Your task to perform on an android device: Is it going to rain tomorrow? Image 0: 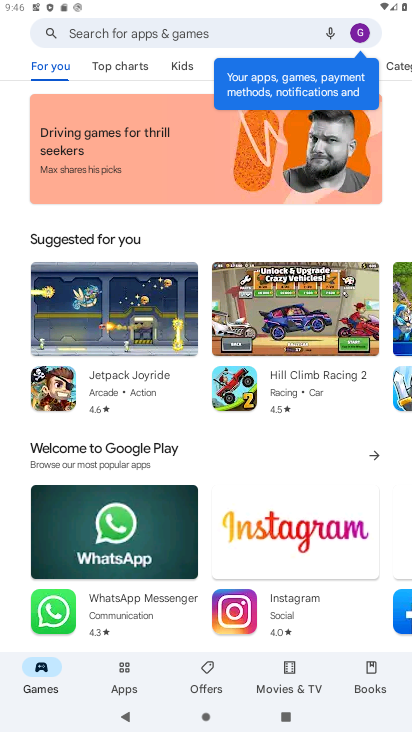
Step 0: press home button
Your task to perform on an android device: Is it going to rain tomorrow? Image 1: 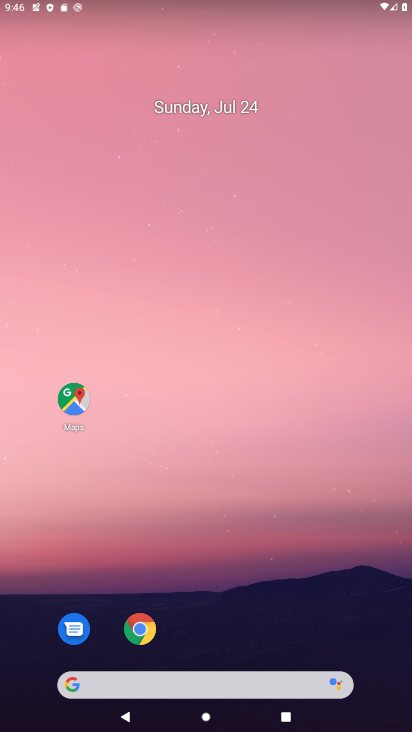
Step 1: click (180, 690)
Your task to perform on an android device: Is it going to rain tomorrow? Image 2: 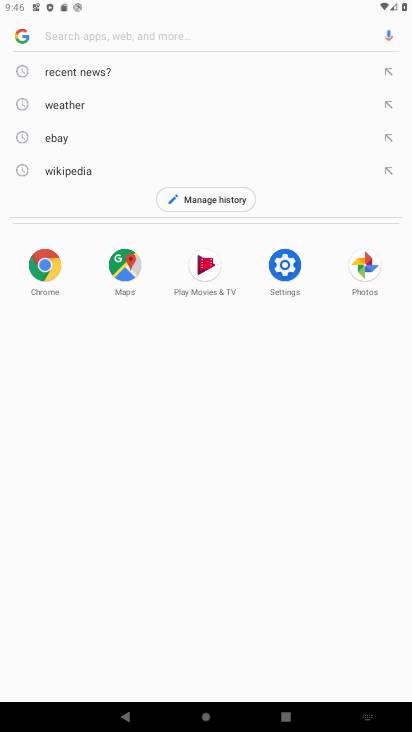
Step 2: click (149, 68)
Your task to perform on an android device: Is it going to rain tomorrow? Image 3: 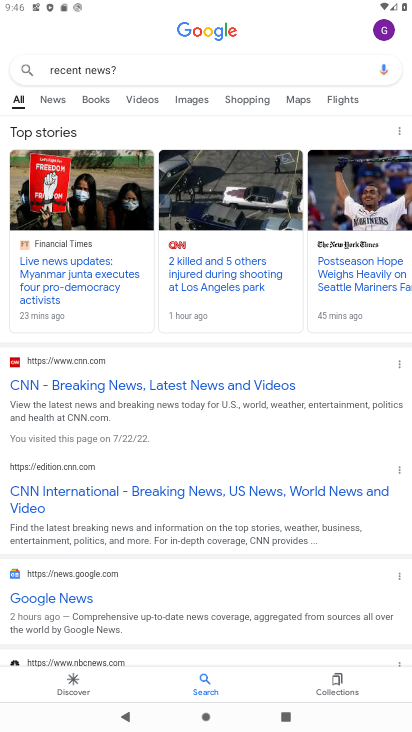
Step 3: task complete